Your task to perform on an android device: toggle airplane mode Image 0: 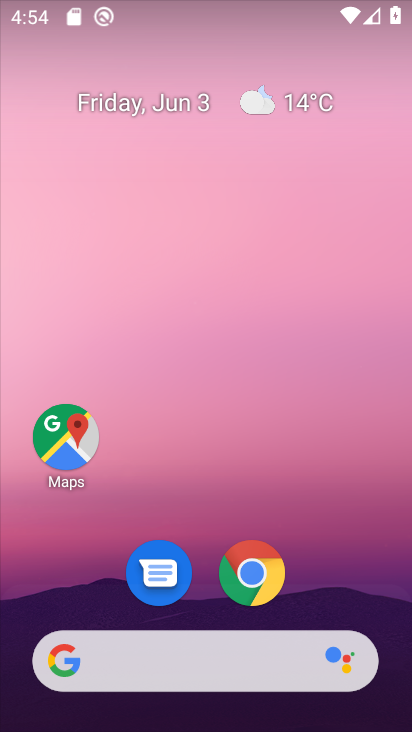
Step 0: drag from (325, 571) to (322, 131)
Your task to perform on an android device: toggle airplane mode Image 1: 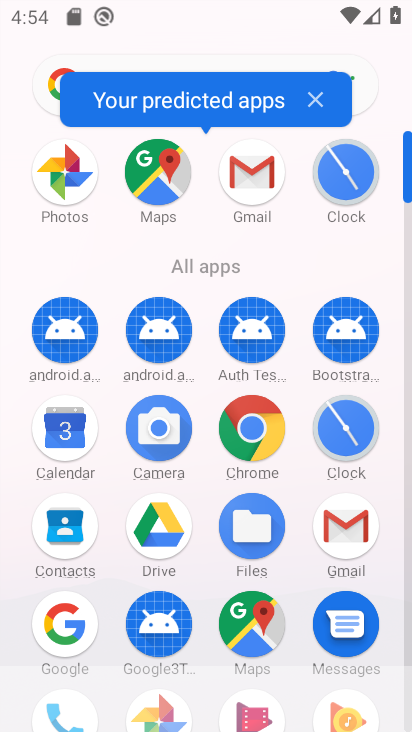
Step 1: drag from (302, 595) to (294, 303)
Your task to perform on an android device: toggle airplane mode Image 2: 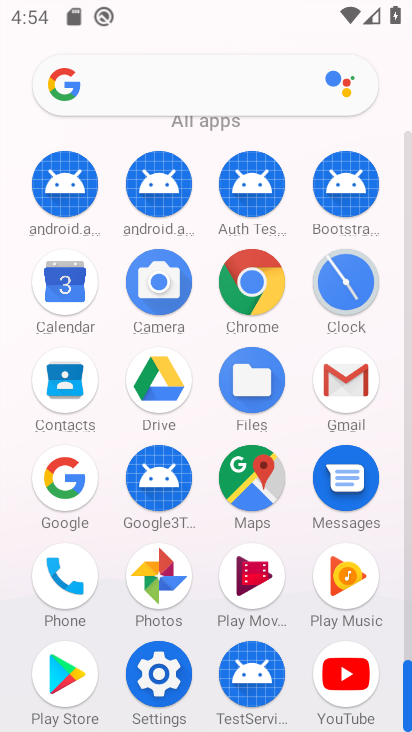
Step 2: click (163, 669)
Your task to perform on an android device: toggle airplane mode Image 3: 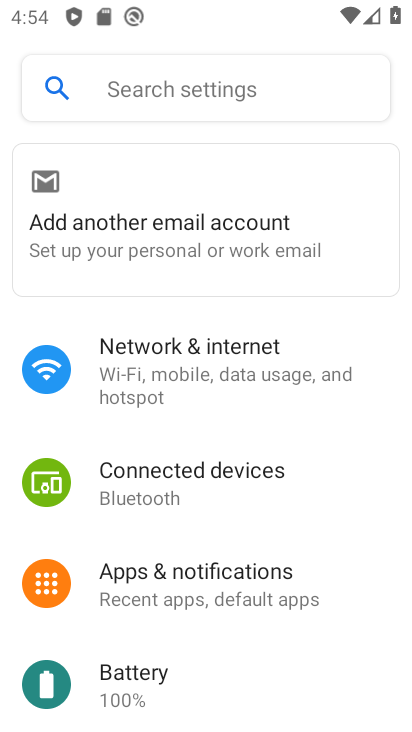
Step 3: click (246, 380)
Your task to perform on an android device: toggle airplane mode Image 4: 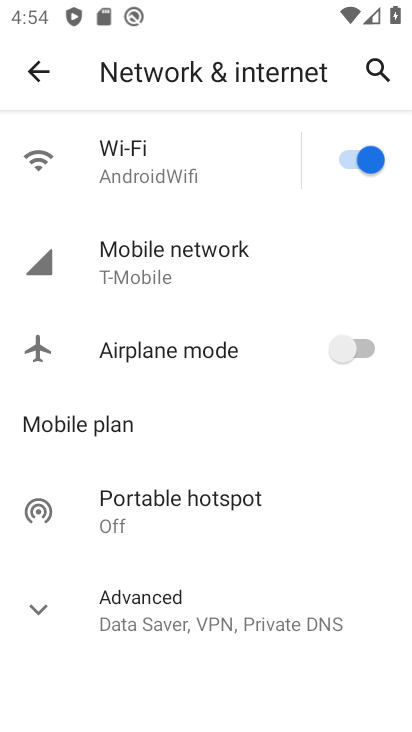
Step 4: click (361, 350)
Your task to perform on an android device: toggle airplane mode Image 5: 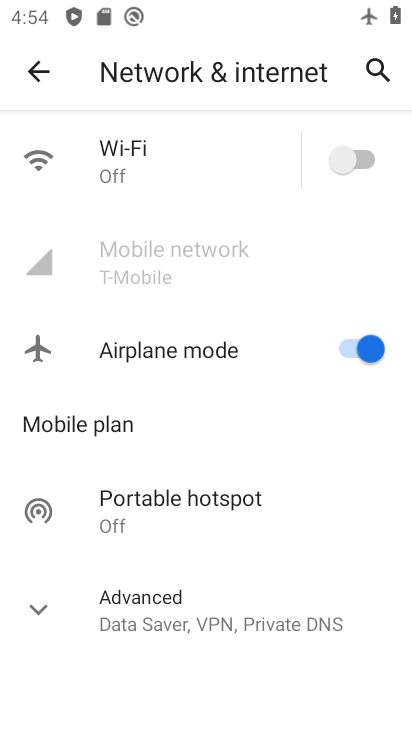
Step 5: task complete